Your task to perform on an android device: Go to battery settings Image 0: 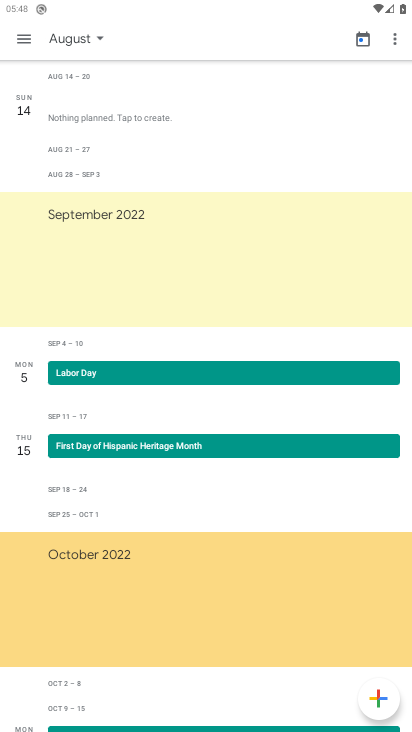
Step 0: press home button
Your task to perform on an android device: Go to battery settings Image 1: 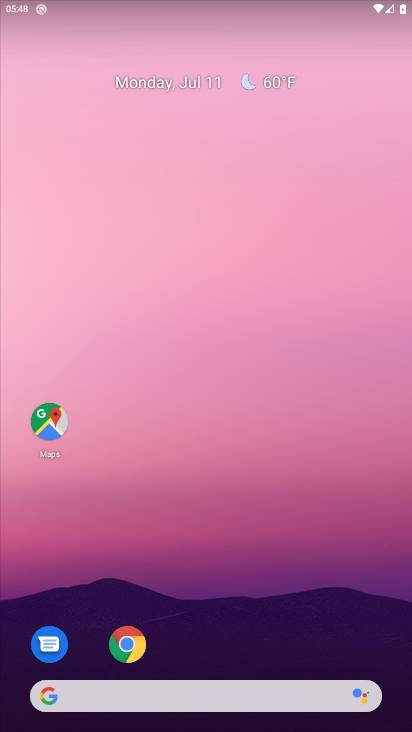
Step 1: drag from (214, 675) to (215, 322)
Your task to perform on an android device: Go to battery settings Image 2: 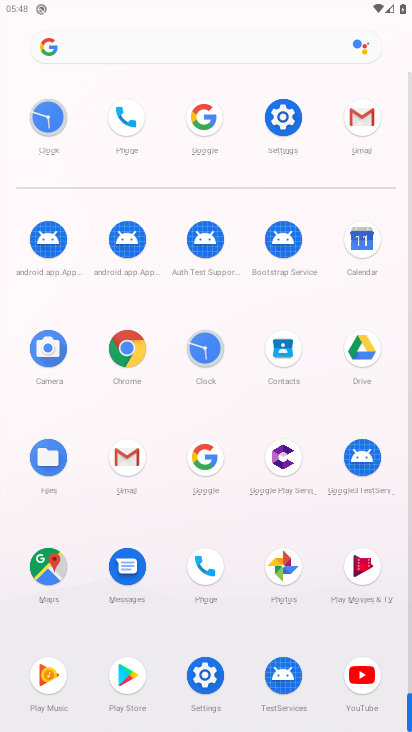
Step 2: click (284, 118)
Your task to perform on an android device: Go to battery settings Image 3: 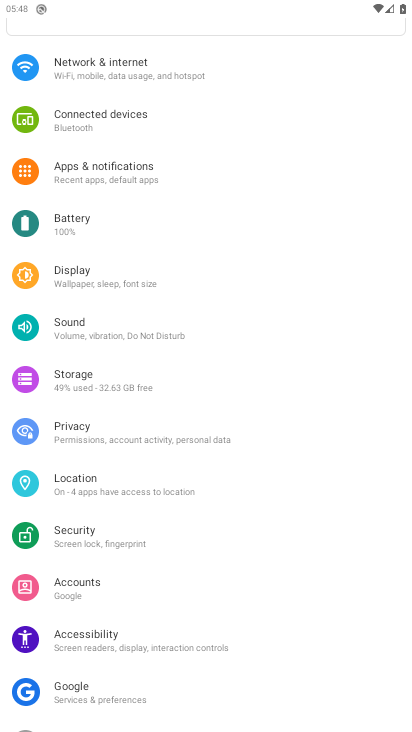
Step 3: click (68, 227)
Your task to perform on an android device: Go to battery settings Image 4: 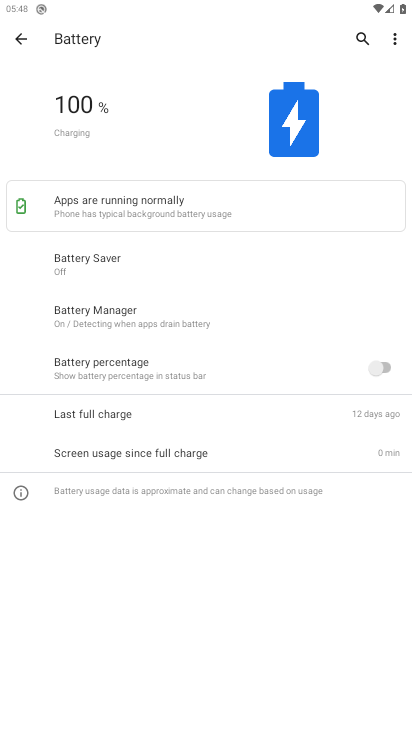
Step 4: click (394, 37)
Your task to perform on an android device: Go to battery settings Image 5: 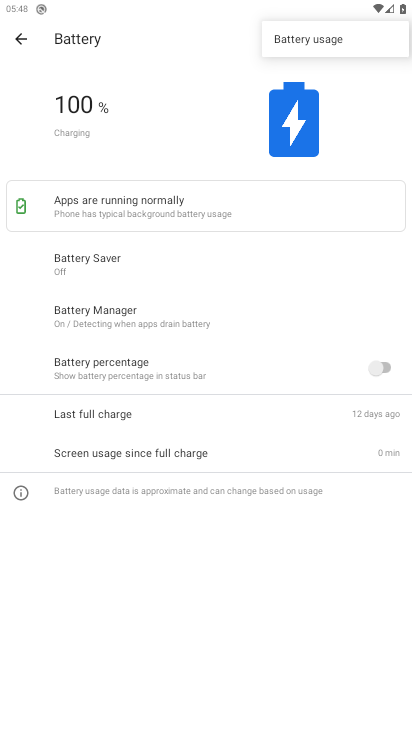
Step 5: click (321, 40)
Your task to perform on an android device: Go to battery settings Image 6: 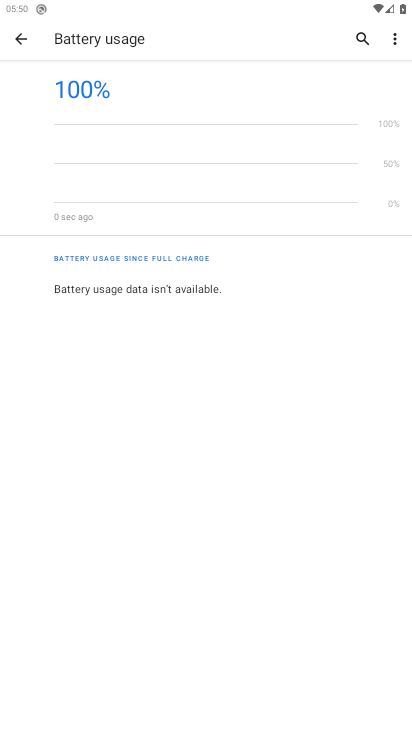
Step 6: task complete